Your task to perform on an android device: Open Google Maps Image 0: 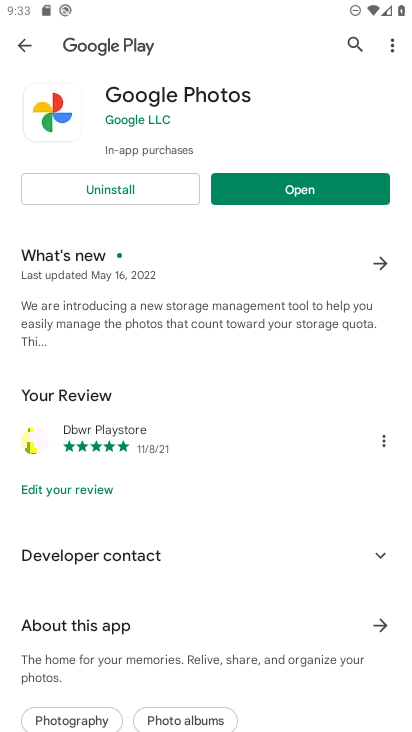
Step 0: press home button
Your task to perform on an android device: Open Google Maps Image 1: 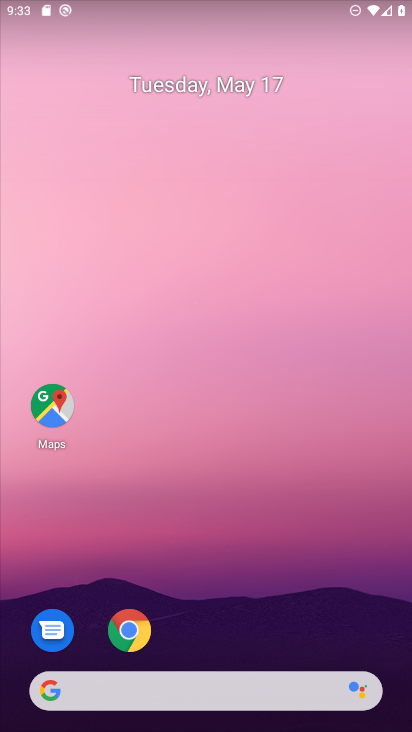
Step 1: drag from (319, 604) to (337, 184)
Your task to perform on an android device: Open Google Maps Image 2: 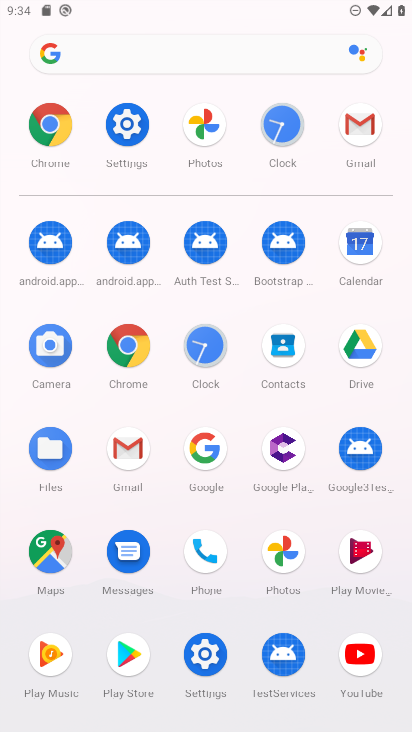
Step 2: click (40, 565)
Your task to perform on an android device: Open Google Maps Image 3: 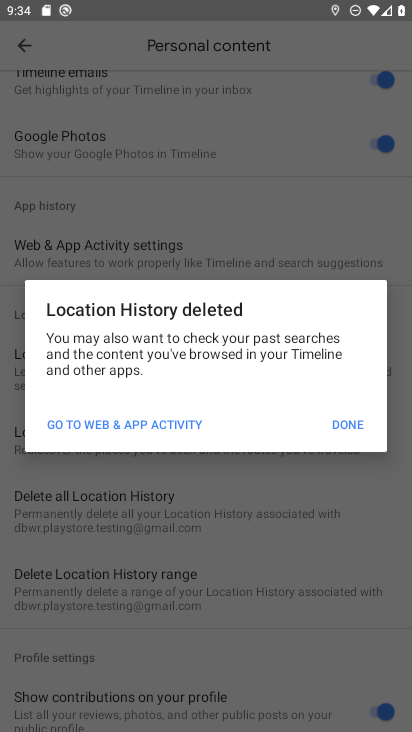
Step 3: task complete